Your task to perform on an android device: toggle show notifications on the lock screen Image 0: 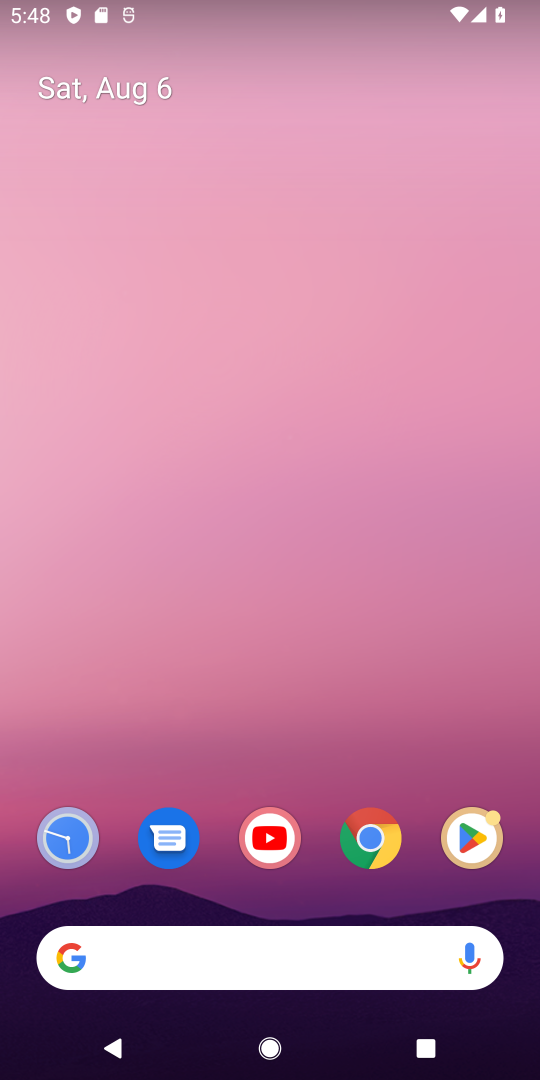
Step 0: drag from (297, 751) to (303, 9)
Your task to perform on an android device: toggle show notifications on the lock screen Image 1: 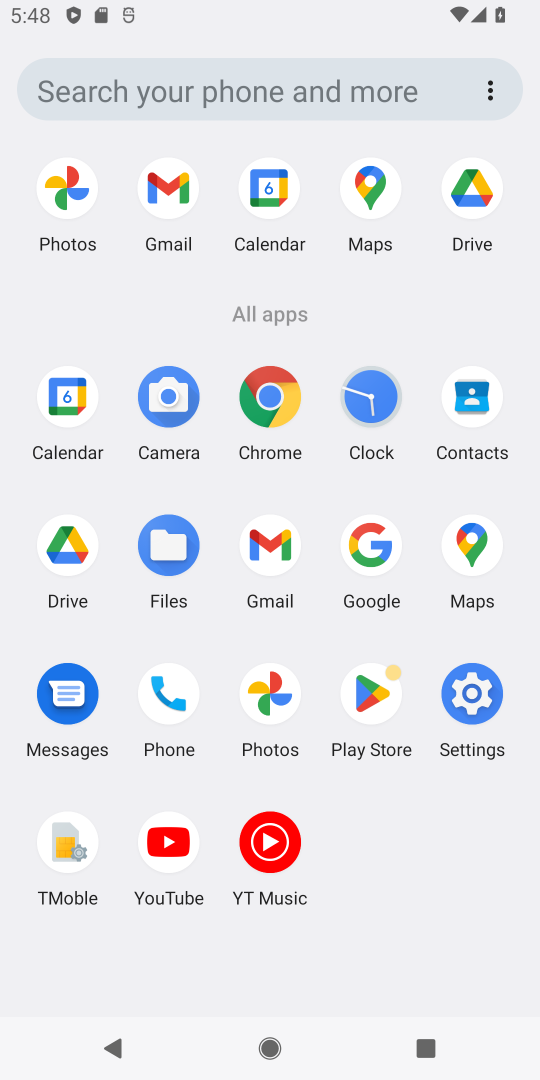
Step 1: click (452, 694)
Your task to perform on an android device: toggle show notifications on the lock screen Image 2: 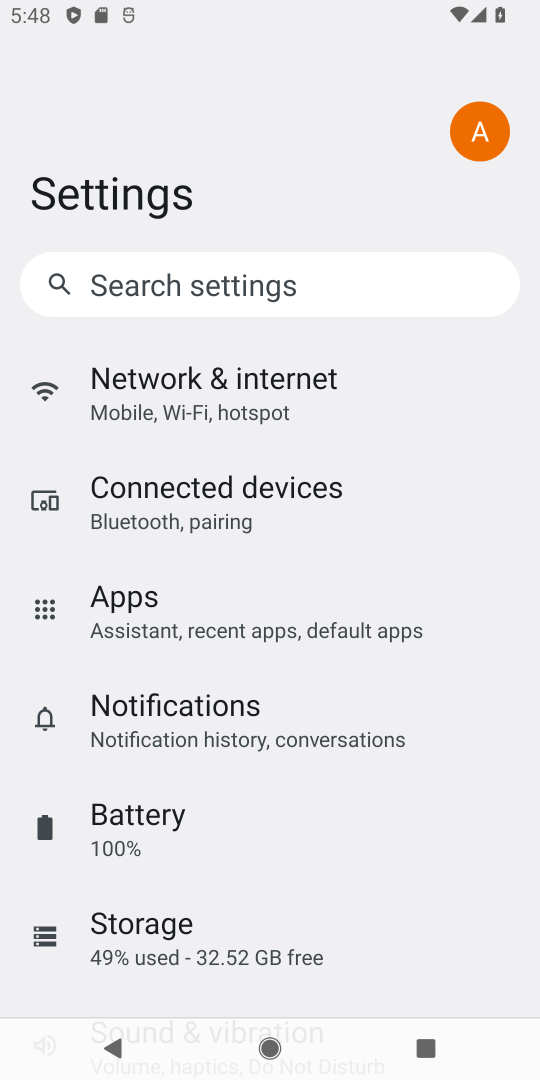
Step 2: click (247, 715)
Your task to perform on an android device: toggle show notifications on the lock screen Image 3: 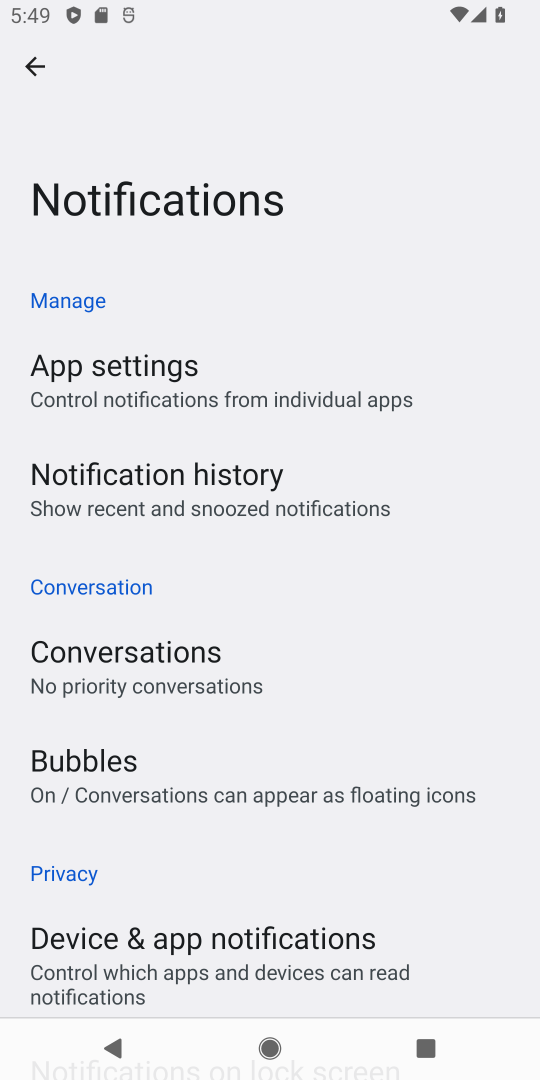
Step 3: drag from (155, 970) to (153, 523)
Your task to perform on an android device: toggle show notifications on the lock screen Image 4: 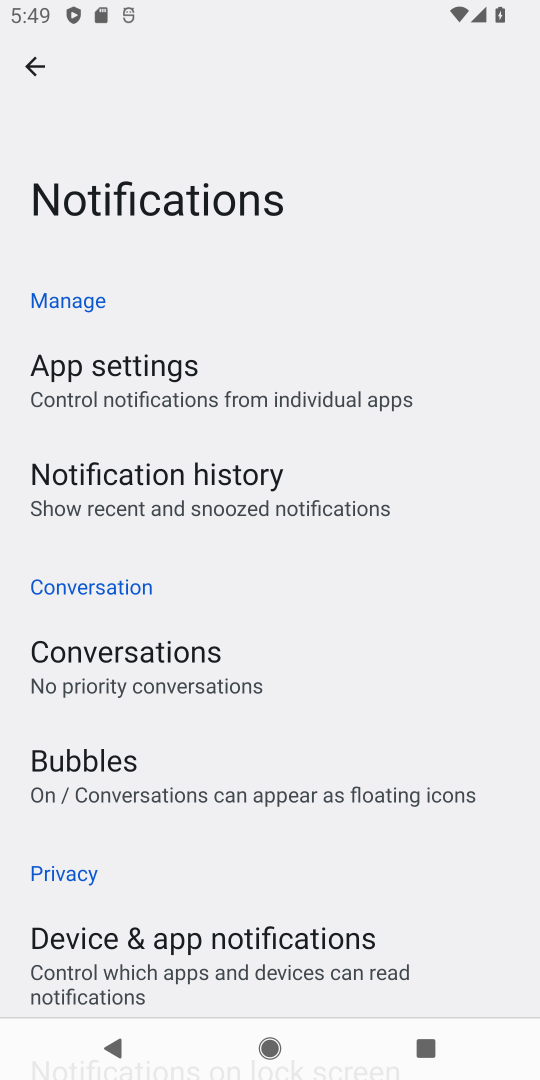
Step 4: drag from (107, 821) to (34, 170)
Your task to perform on an android device: toggle show notifications on the lock screen Image 5: 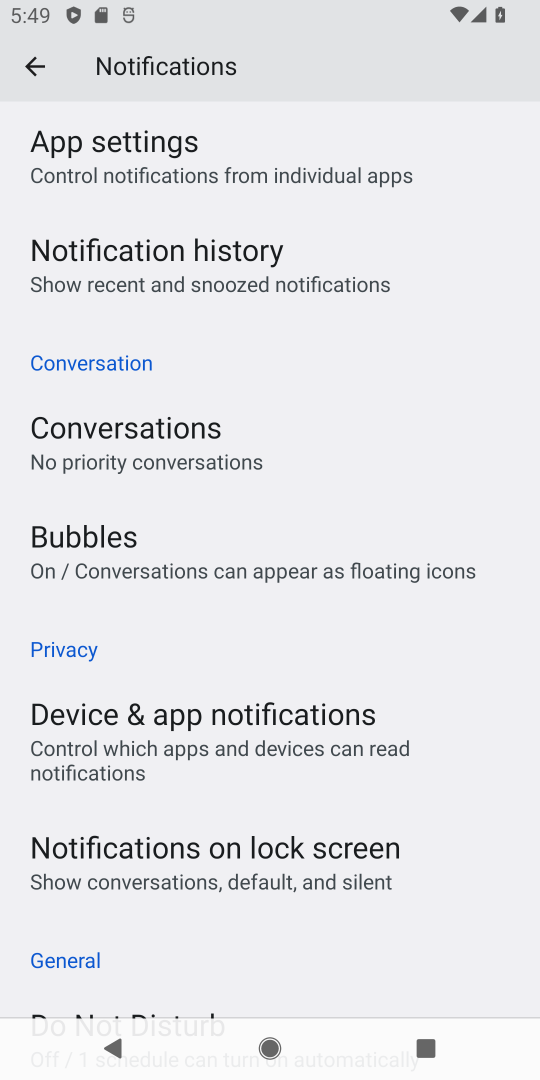
Step 5: click (106, 845)
Your task to perform on an android device: toggle show notifications on the lock screen Image 6: 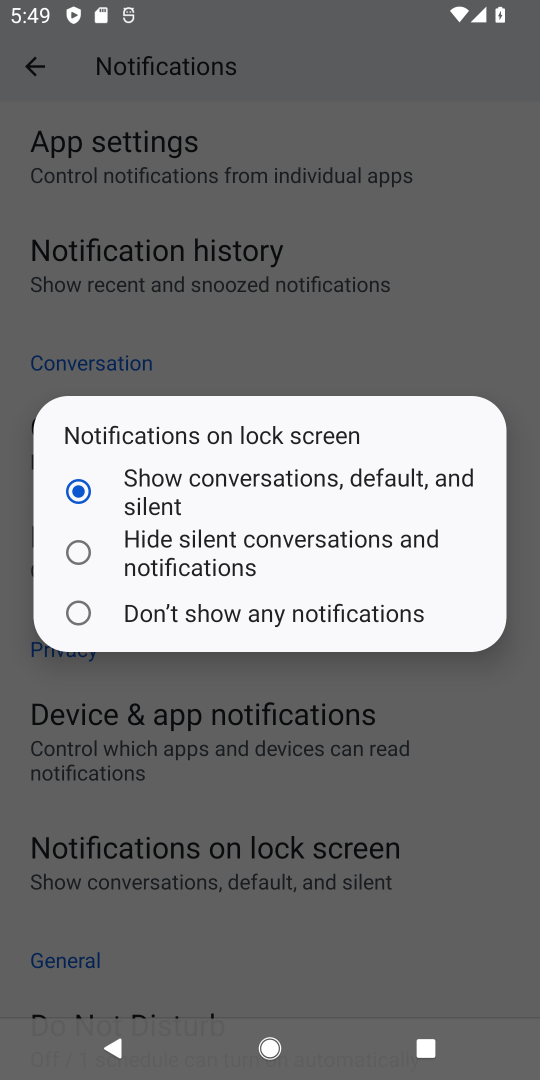
Step 6: click (275, 539)
Your task to perform on an android device: toggle show notifications on the lock screen Image 7: 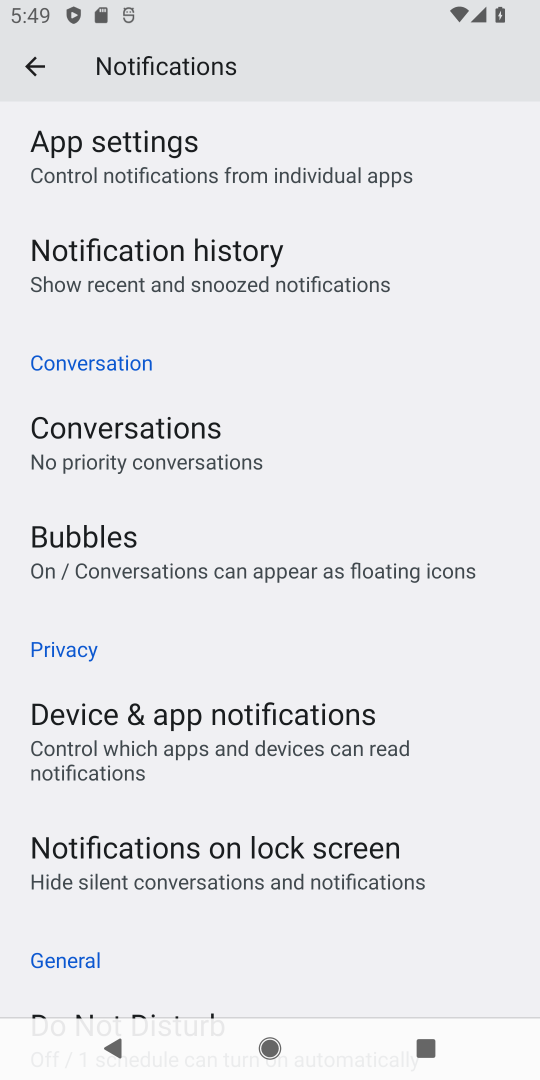
Step 7: task complete